Your task to perform on an android device: turn on bluetooth scan Image 0: 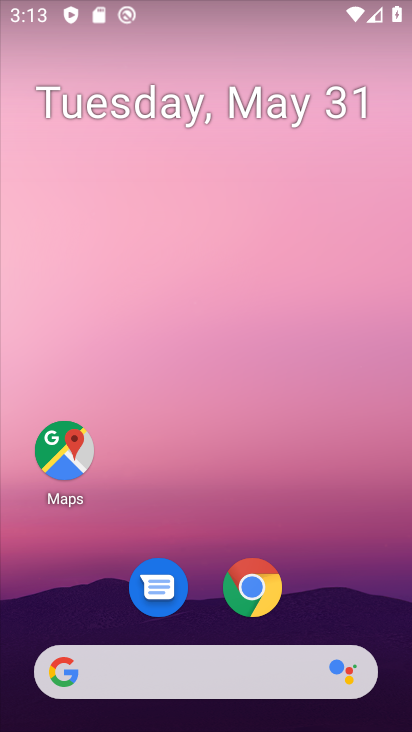
Step 0: drag from (314, 626) to (339, 118)
Your task to perform on an android device: turn on bluetooth scan Image 1: 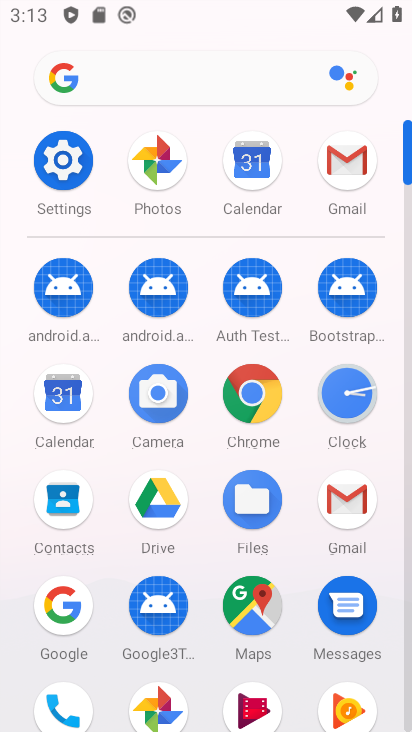
Step 1: click (65, 159)
Your task to perform on an android device: turn on bluetooth scan Image 2: 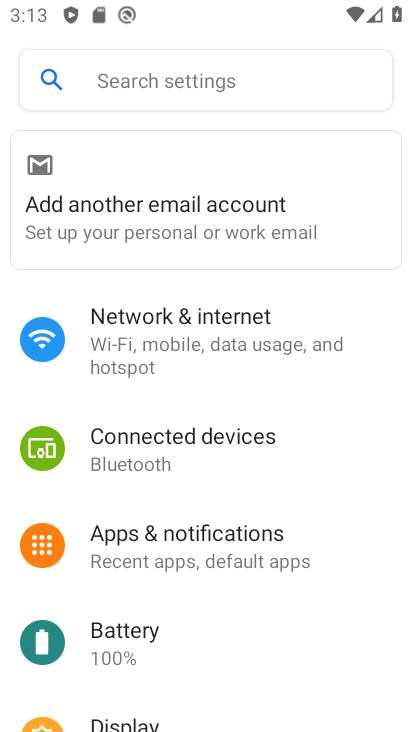
Step 2: drag from (167, 628) to (264, 233)
Your task to perform on an android device: turn on bluetooth scan Image 3: 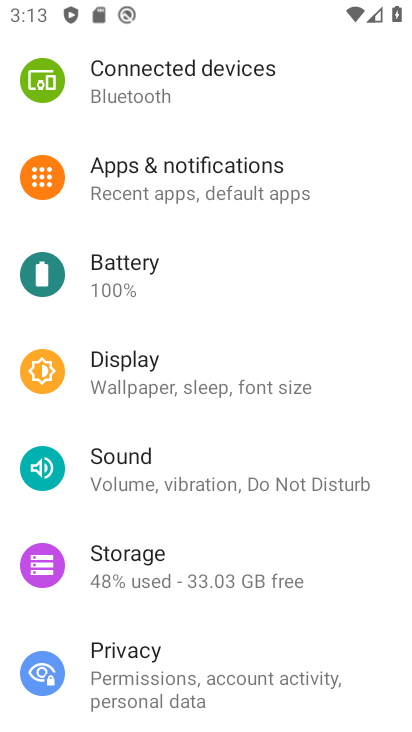
Step 3: drag from (139, 666) to (167, 345)
Your task to perform on an android device: turn on bluetooth scan Image 4: 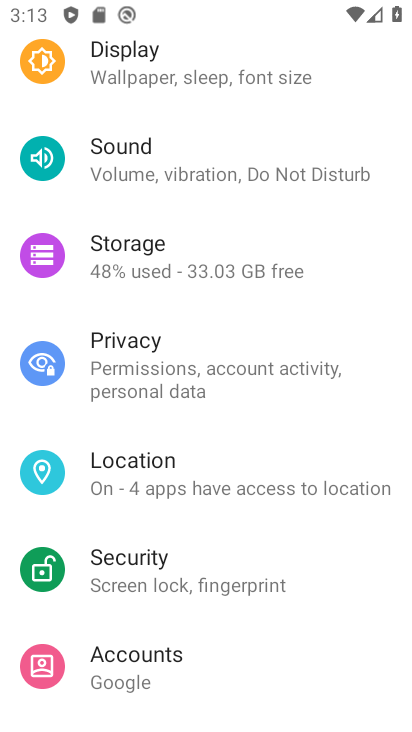
Step 4: click (143, 496)
Your task to perform on an android device: turn on bluetooth scan Image 5: 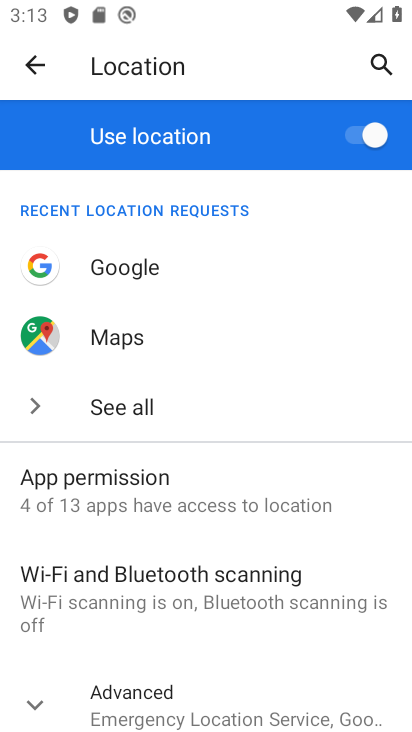
Step 5: click (136, 591)
Your task to perform on an android device: turn on bluetooth scan Image 6: 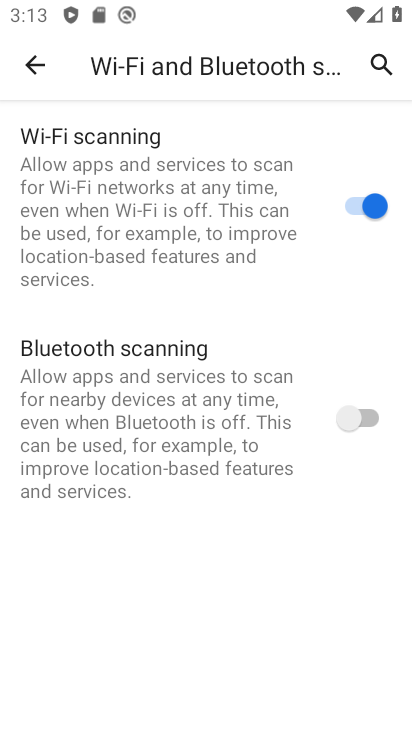
Step 6: click (351, 412)
Your task to perform on an android device: turn on bluetooth scan Image 7: 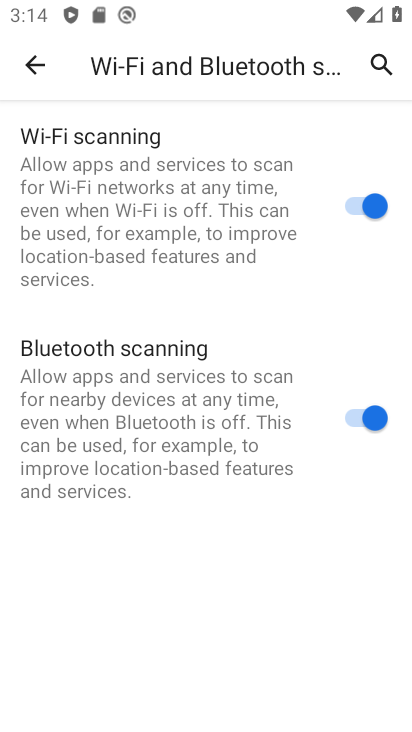
Step 7: task complete